Your task to perform on an android device: Turn on the flashlight Image 0: 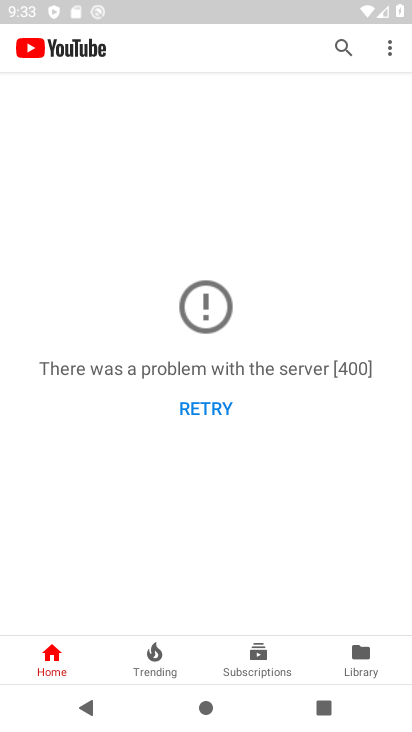
Step 0: press home button
Your task to perform on an android device: Turn on the flashlight Image 1: 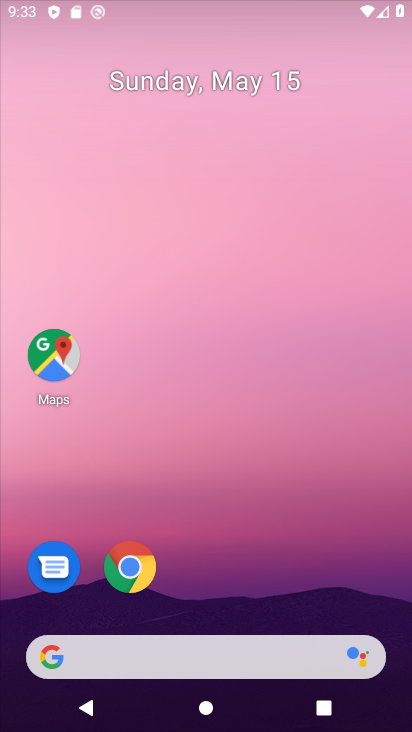
Step 1: drag from (223, 573) to (227, 115)
Your task to perform on an android device: Turn on the flashlight Image 2: 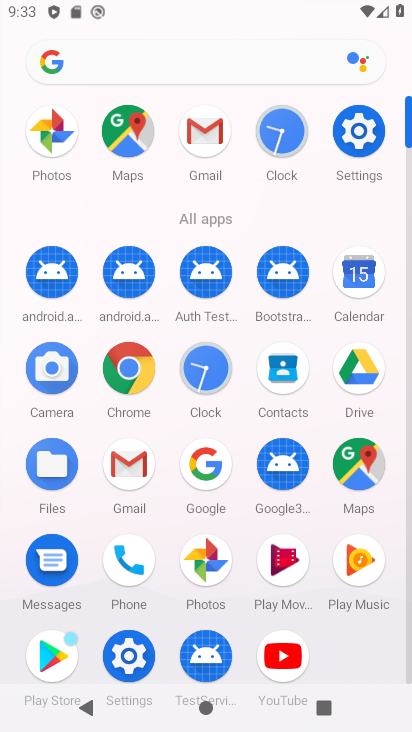
Step 2: click (359, 122)
Your task to perform on an android device: Turn on the flashlight Image 3: 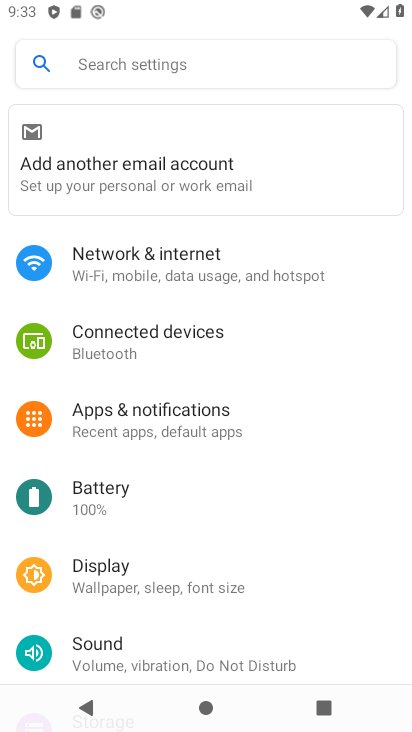
Step 3: click (222, 68)
Your task to perform on an android device: Turn on the flashlight Image 4: 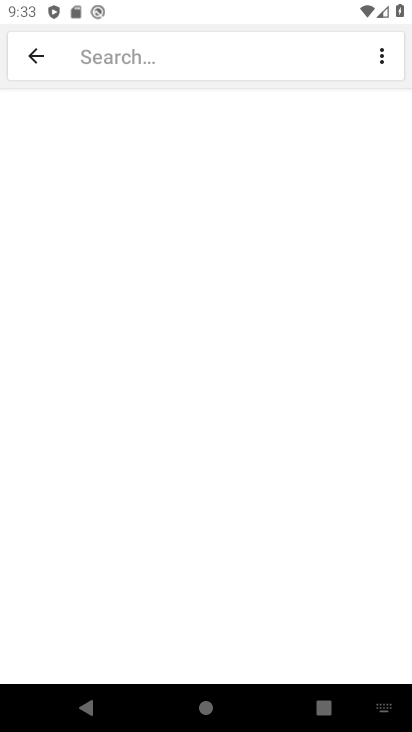
Step 4: type "flash"
Your task to perform on an android device: Turn on the flashlight Image 5: 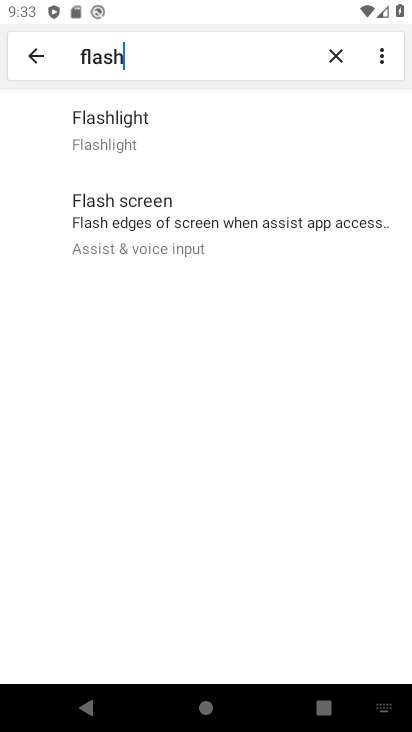
Step 5: task complete